Your task to perform on an android device: Open Chrome and go to settings Image 0: 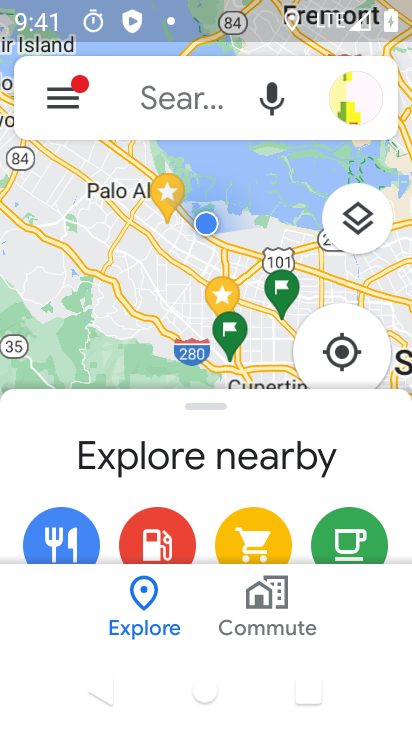
Step 0: press home button
Your task to perform on an android device: Open Chrome and go to settings Image 1: 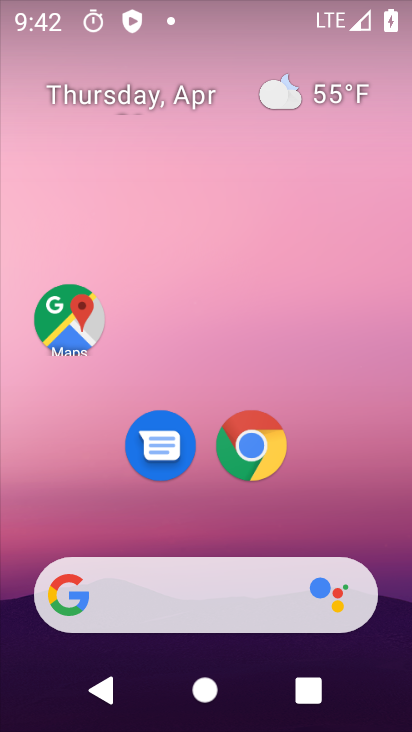
Step 1: click (262, 434)
Your task to perform on an android device: Open Chrome and go to settings Image 2: 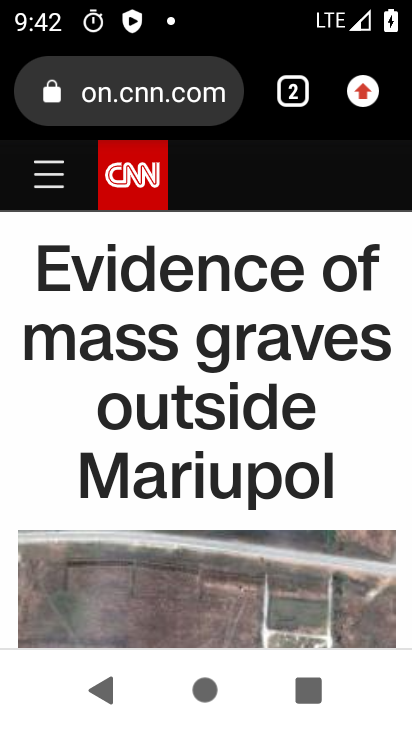
Step 2: click (373, 76)
Your task to perform on an android device: Open Chrome and go to settings Image 3: 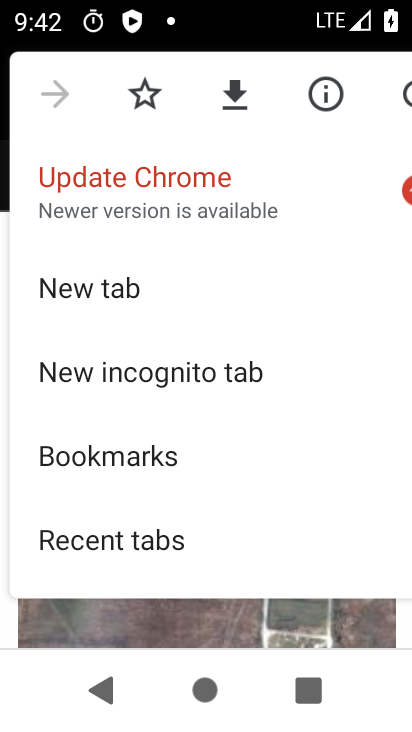
Step 3: drag from (231, 465) to (221, 105)
Your task to perform on an android device: Open Chrome and go to settings Image 4: 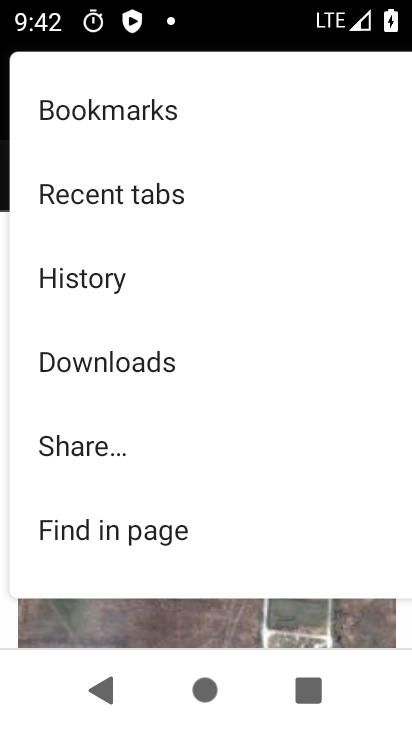
Step 4: drag from (191, 457) to (186, 116)
Your task to perform on an android device: Open Chrome and go to settings Image 5: 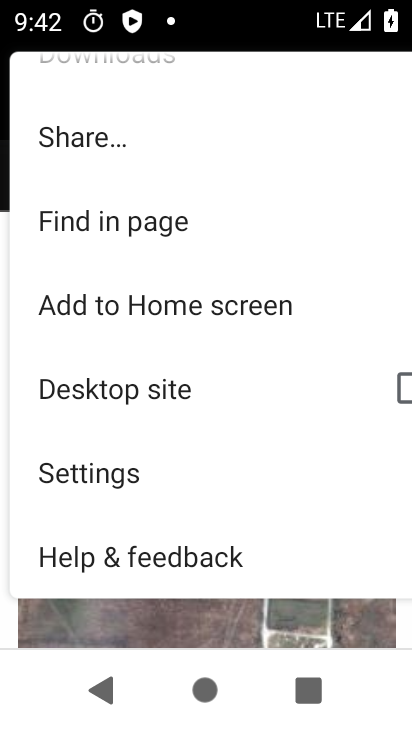
Step 5: click (86, 471)
Your task to perform on an android device: Open Chrome and go to settings Image 6: 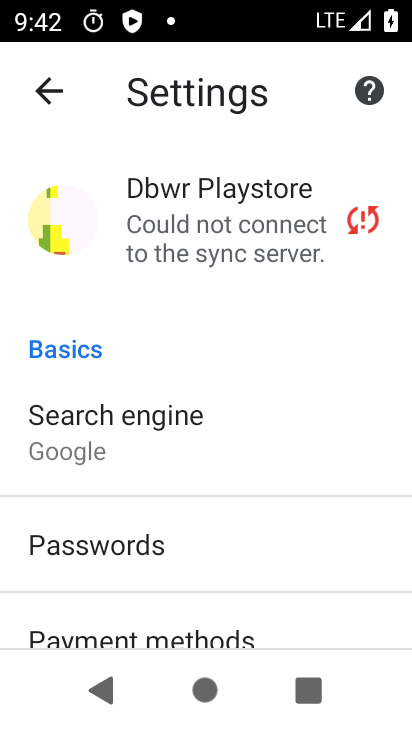
Step 6: task complete